Your task to perform on an android device: empty trash in the gmail app Image 0: 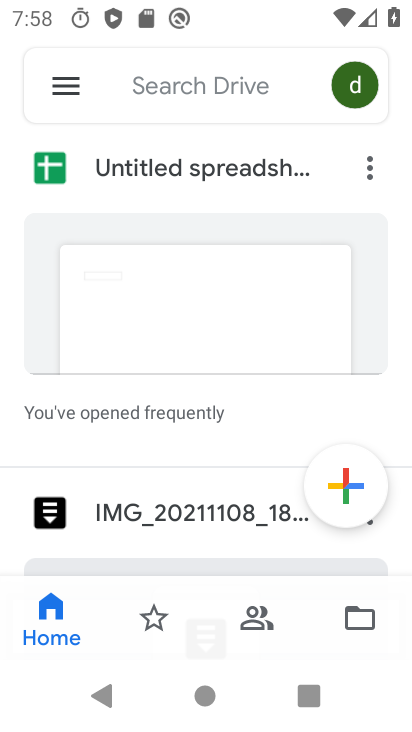
Step 0: press home button
Your task to perform on an android device: empty trash in the gmail app Image 1: 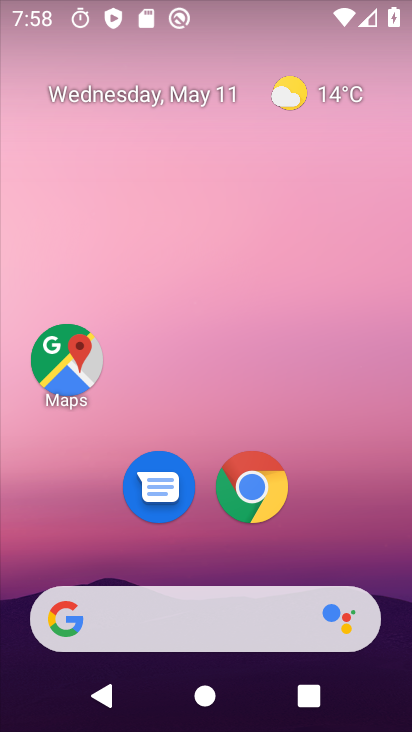
Step 1: drag from (224, 730) to (257, 255)
Your task to perform on an android device: empty trash in the gmail app Image 2: 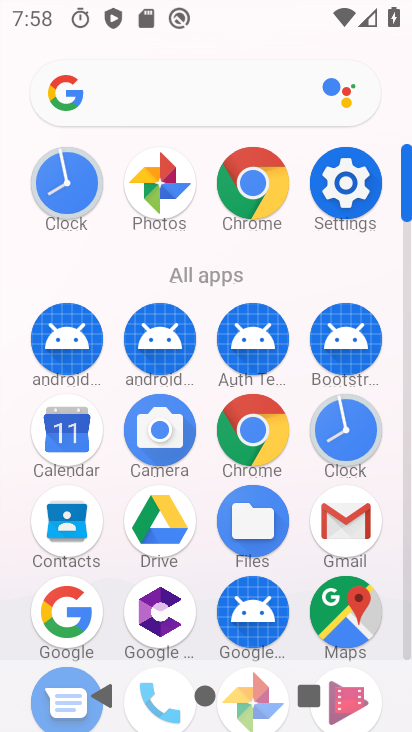
Step 2: click (350, 521)
Your task to perform on an android device: empty trash in the gmail app Image 3: 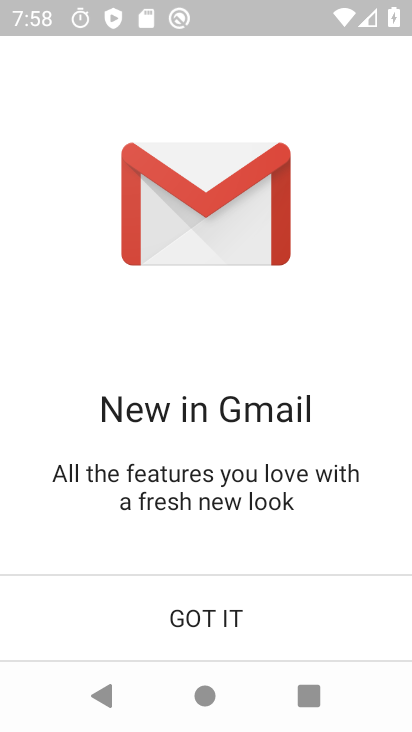
Step 3: click (193, 616)
Your task to perform on an android device: empty trash in the gmail app Image 4: 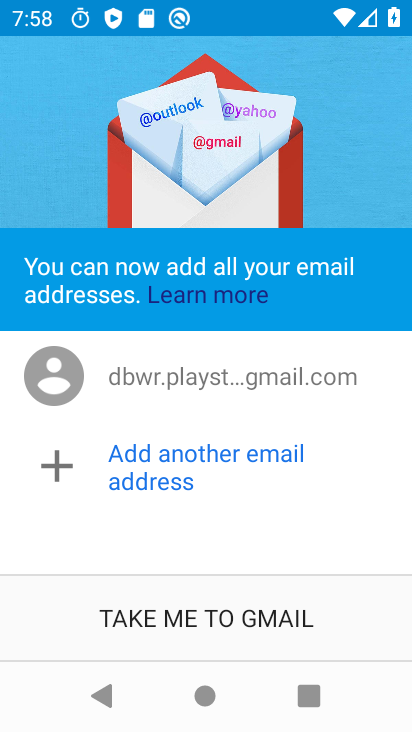
Step 4: click (193, 616)
Your task to perform on an android device: empty trash in the gmail app Image 5: 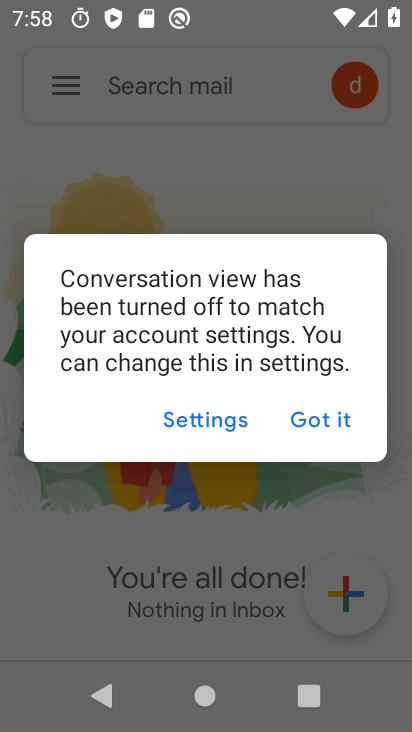
Step 5: click (319, 420)
Your task to perform on an android device: empty trash in the gmail app Image 6: 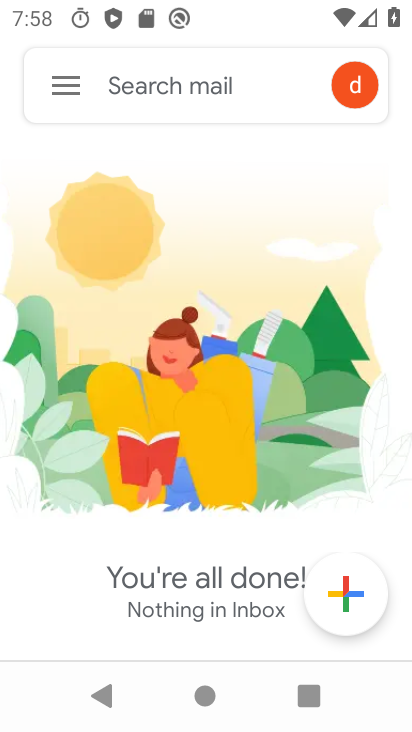
Step 6: click (58, 90)
Your task to perform on an android device: empty trash in the gmail app Image 7: 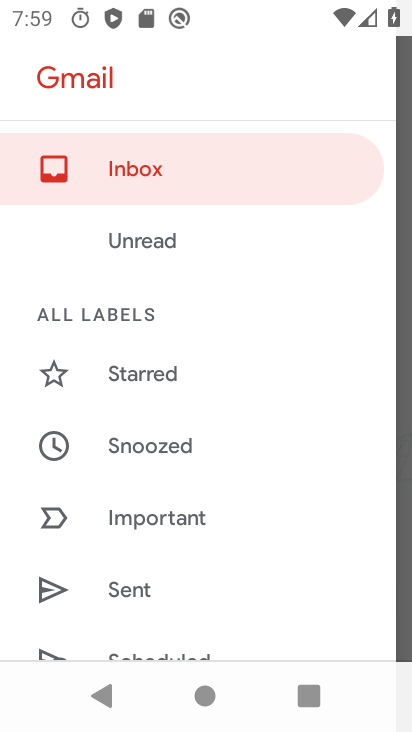
Step 7: drag from (156, 627) to (175, 326)
Your task to perform on an android device: empty trash in the gmail app Image 8: 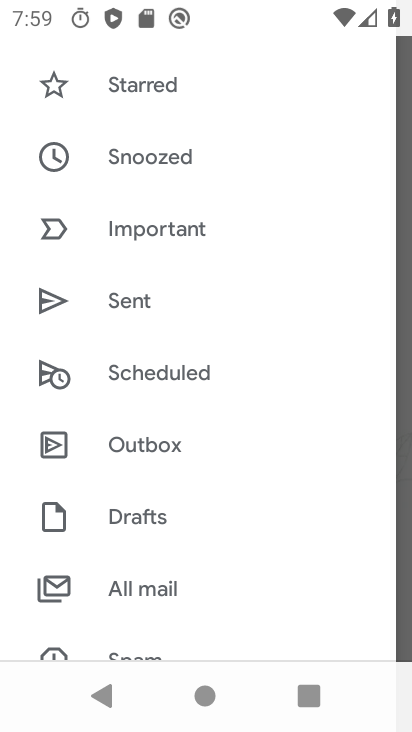
Step 8: drag from (189, 605) to (201, 383)
Your task to perform on an android device: empty trash in the gmail app Image 9: 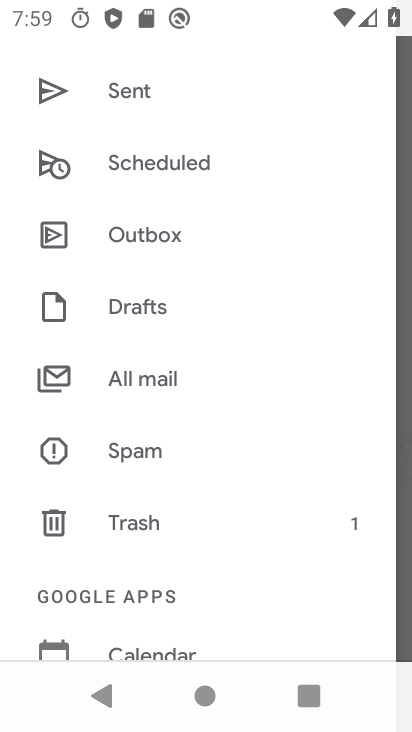
Step 9: click (139, 525)
Your task to perform on an android device: empty trash in the gmail app Image 10: 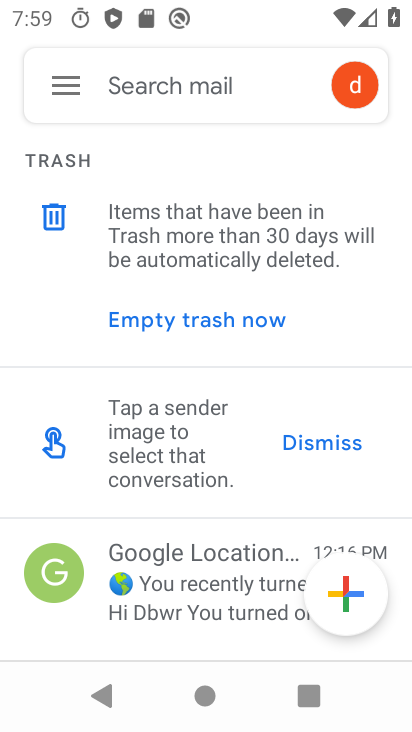
Step 10: drag from (178, 575) to (201, 411)
Your task to perform on an android device: empty trash in the gmail app Image 11: 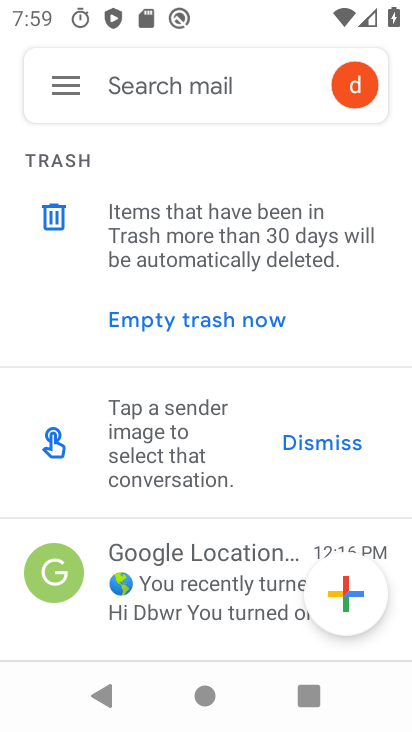
Step 11: click (242, 320)
Your task to perform on an android device: empty trash in the gmail app Image 12: 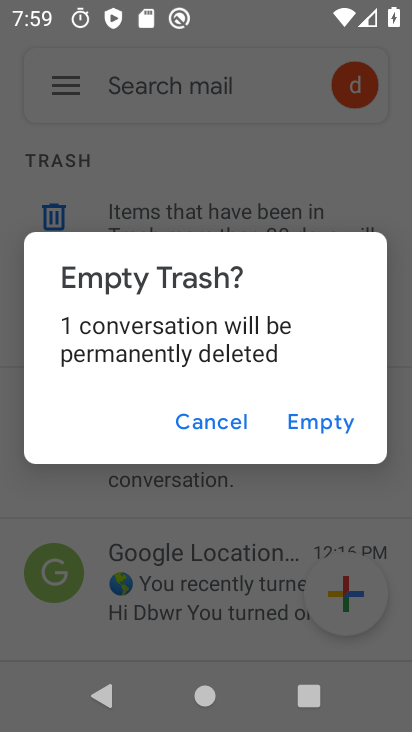
Step 12: click (312, 425)
Your task to perform on an android device: empty trash in the gmail app Image 13: 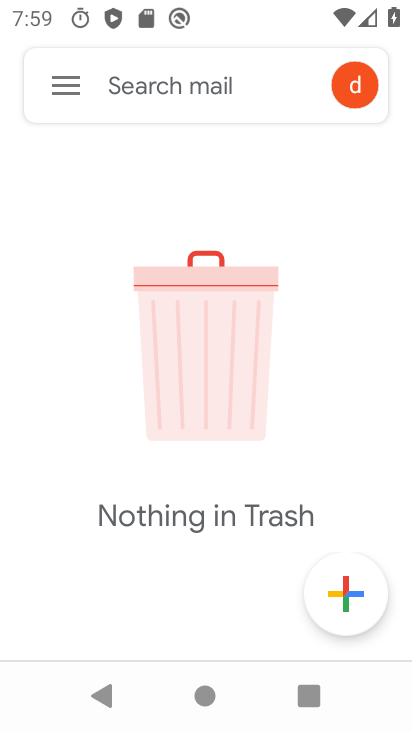
Step 13: task complete